Your task to perform on an android device: toggle airplane mode Image 0: 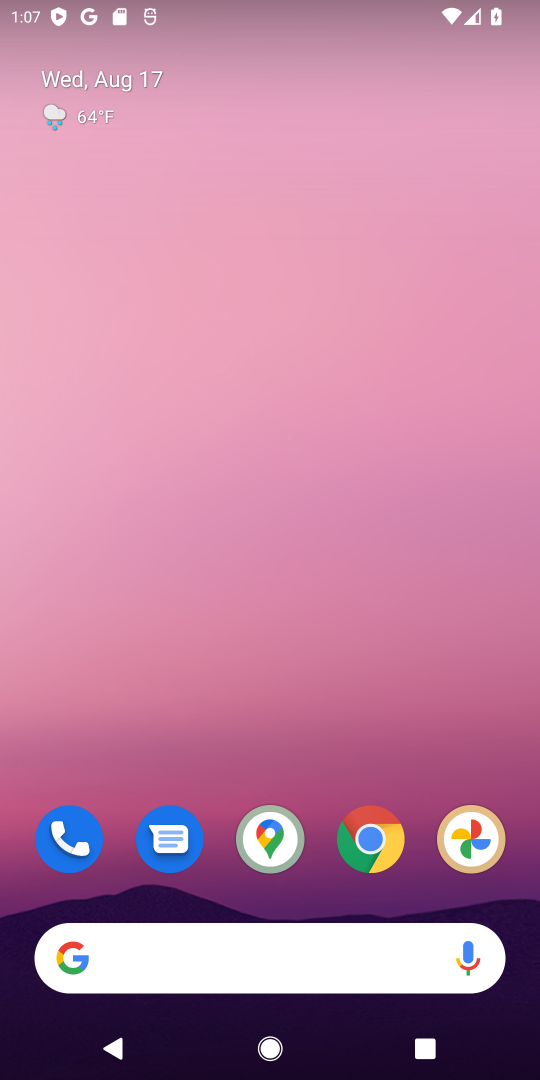
Step 0: drag from (256, 970) to (260, 153)
Your task to perform on an android device: toggle airplane mode Image 1: 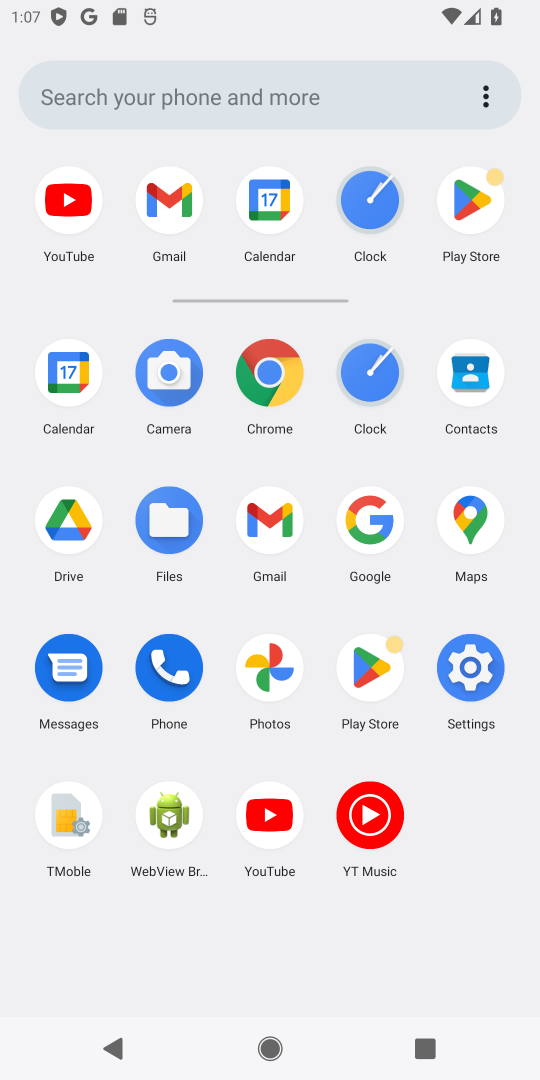
Step 1: click (471, 665)
Your task to perform on an android device: toggle airplane mode Image 2: 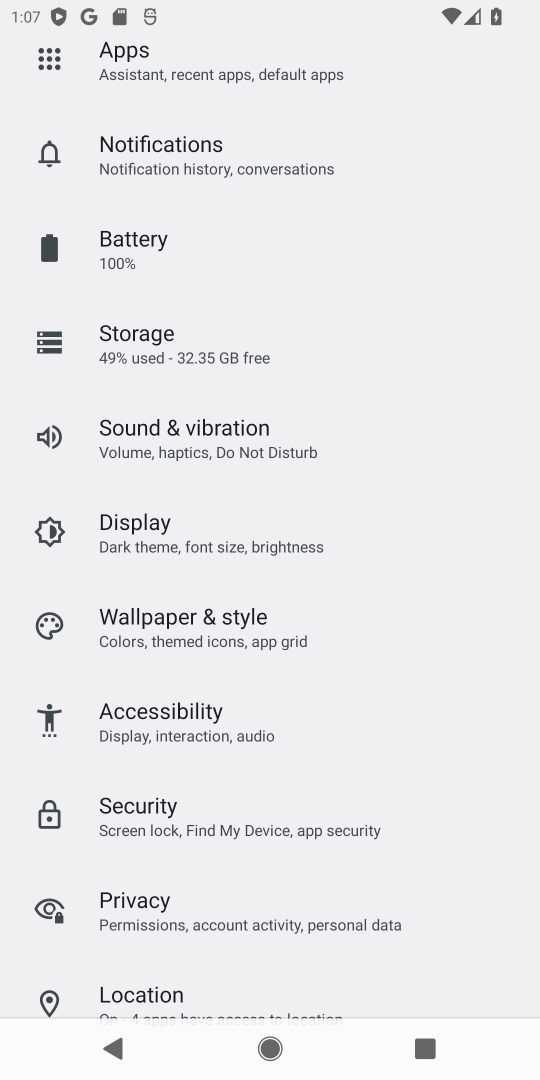
Step 2: drag from (272, 287) to (237, 466)
Your task to perform on an android device: toggle airplane mode Image 3: 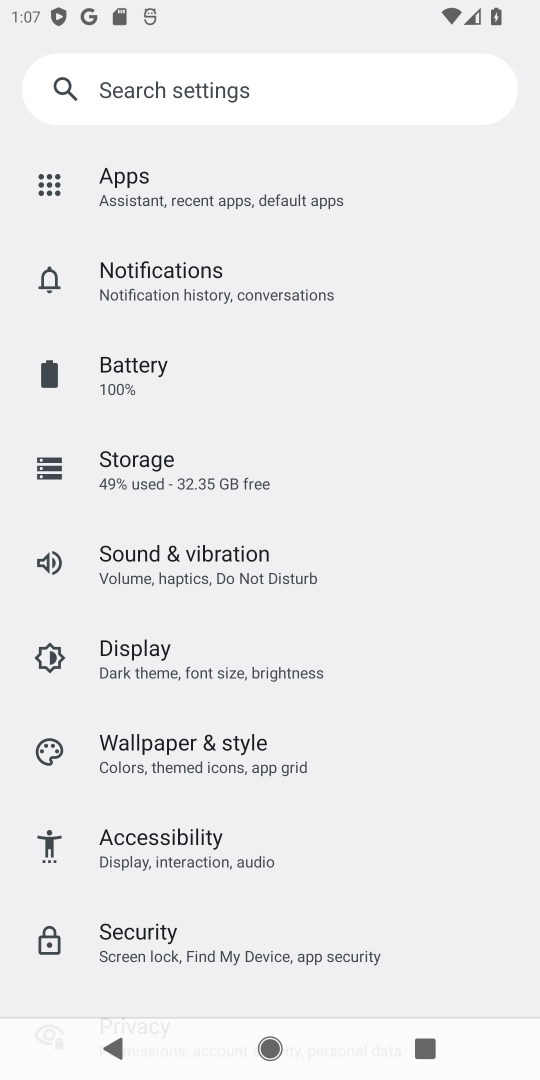
Step 3: drag from (275, 246) to (222, 500)
Your task to perform on an android device: toggle airplane mode Image 4: 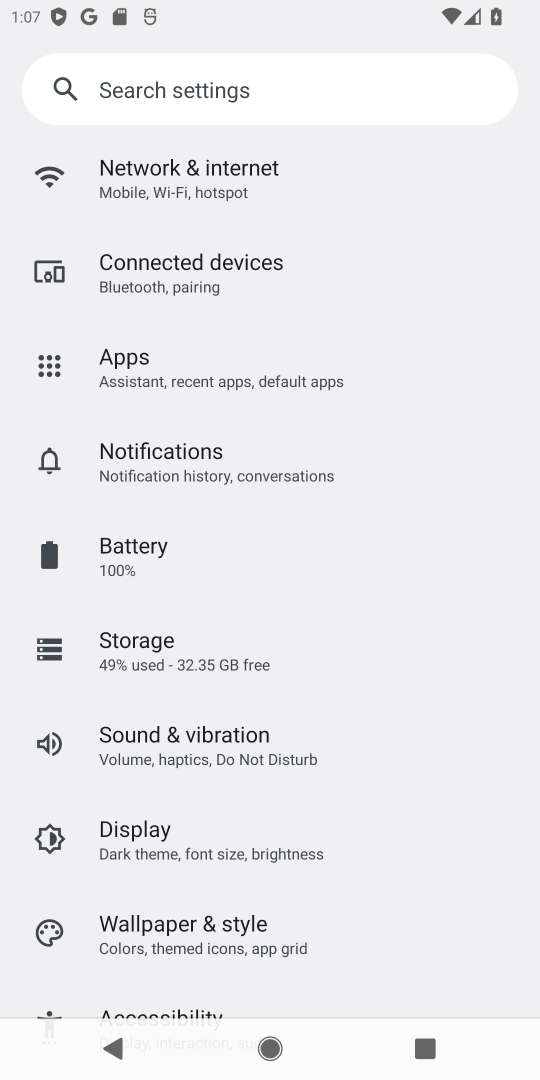
Step 4: click (211, 186)
Your task to perform on an android device: toggle airplane mode Image 5: 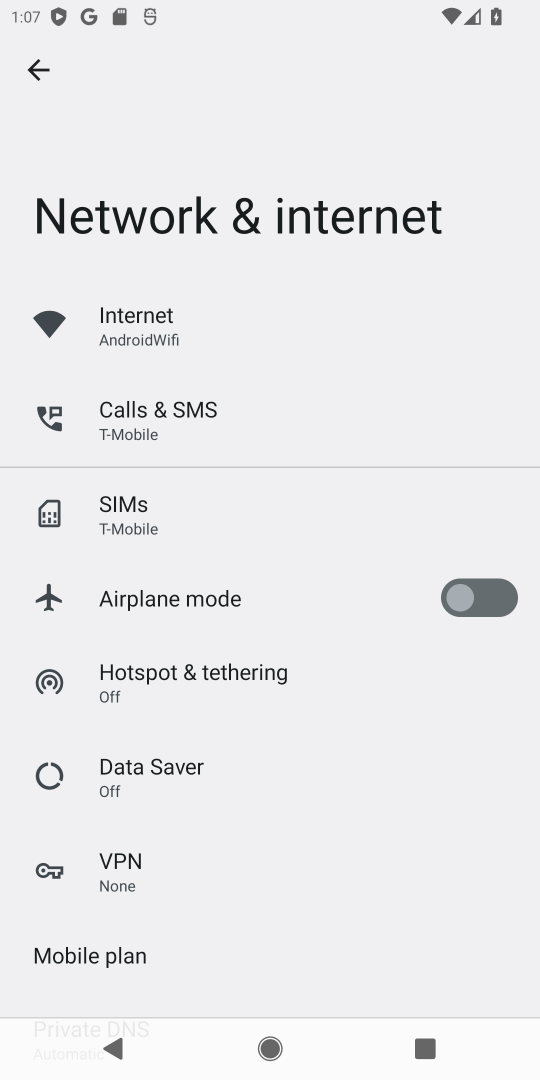
Step 5: click (456, 604)
Your task to perform on an android device: toggle airplane mode Image 6: 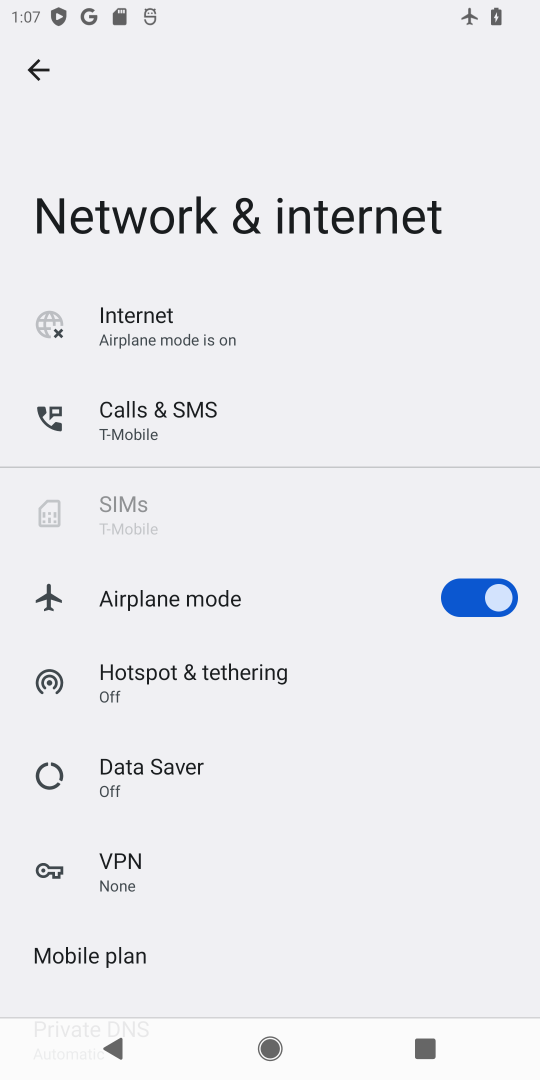
Step 6: task complete